Your task to perform on an android device: Go to Yahoo.com Image 0: 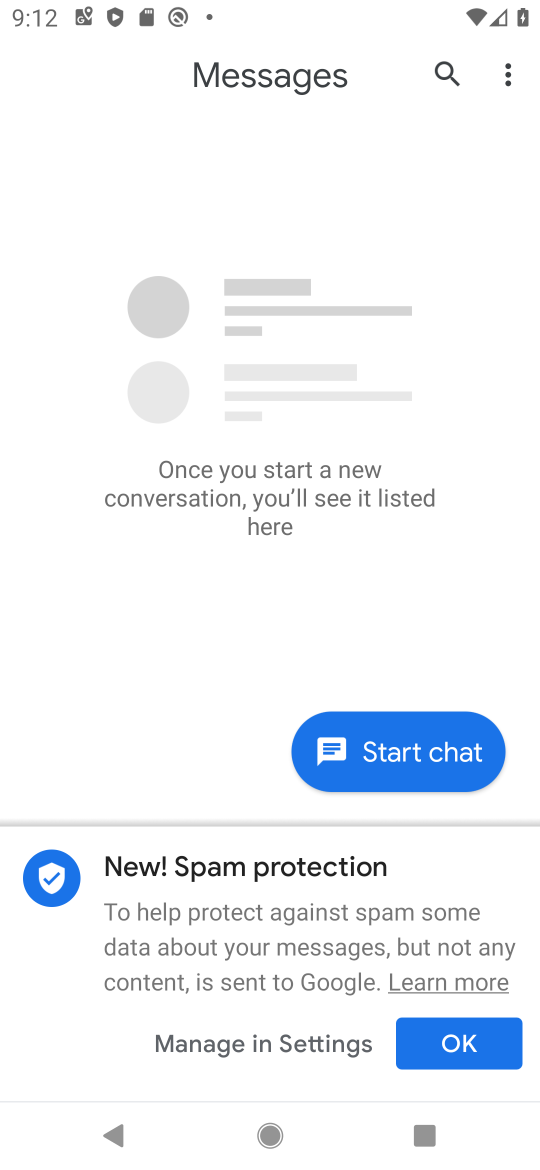
Step 0: press home button
Your task to perform on an android device: Go to Yahoo.com Image 1: 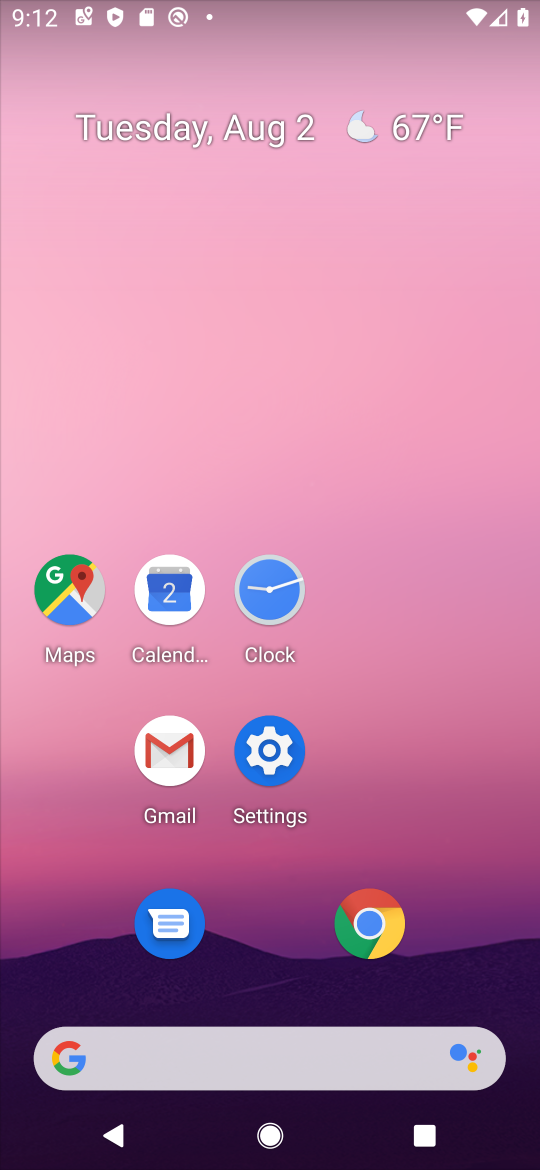
Step 1: click (366, 912)
Your task to perform on an android device: Go to Yahoo.com Image 2: 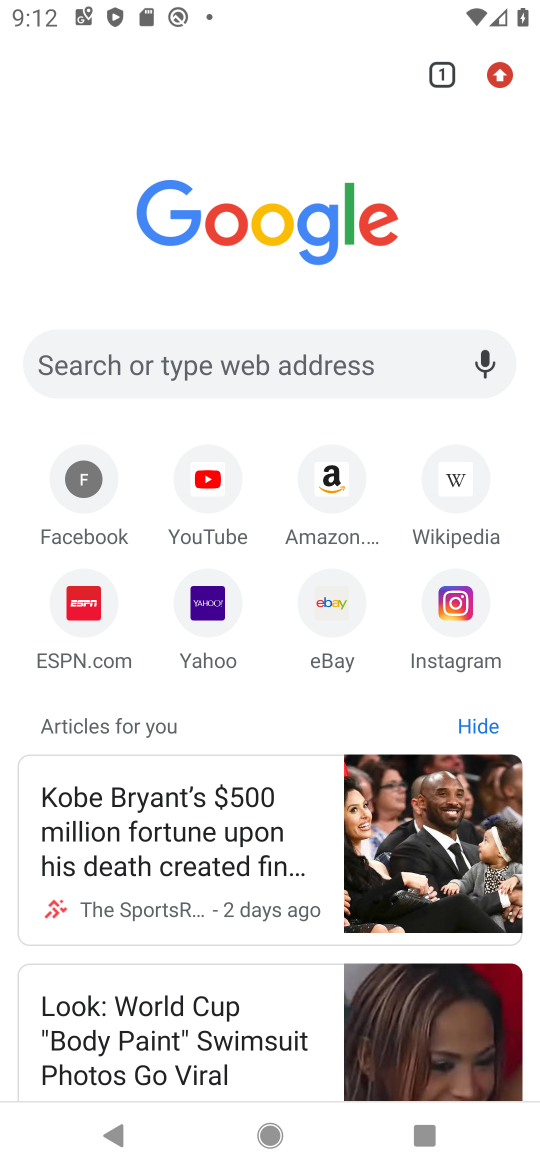
Step 2: click (250, 352)
Your task to perform on an android device: Go to Yahoo.com Image 3: 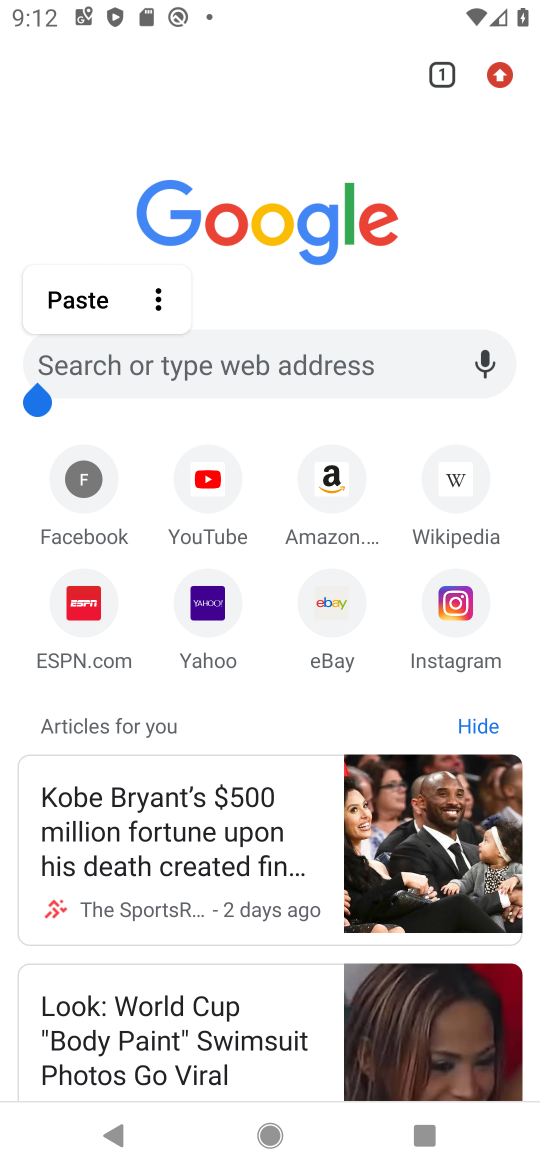
Step 3: type "Yahoo.com"
Your task to perform on an android device: Go to Yahoo.com Image 4: 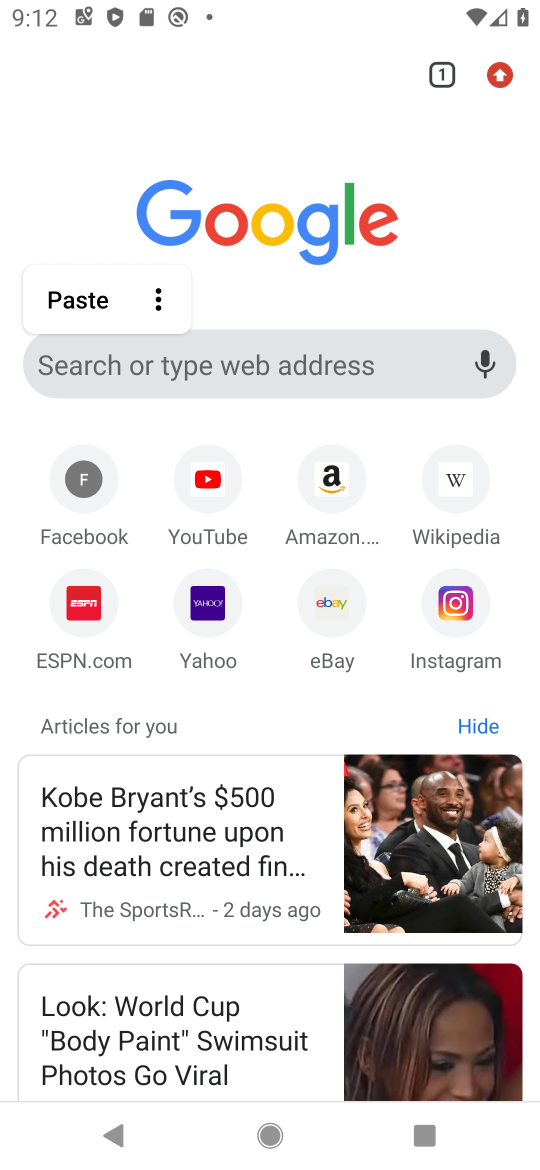
Step 4: click (292, 351)
Your task to perform on an android device: Go to Yahoo.com Image 5: 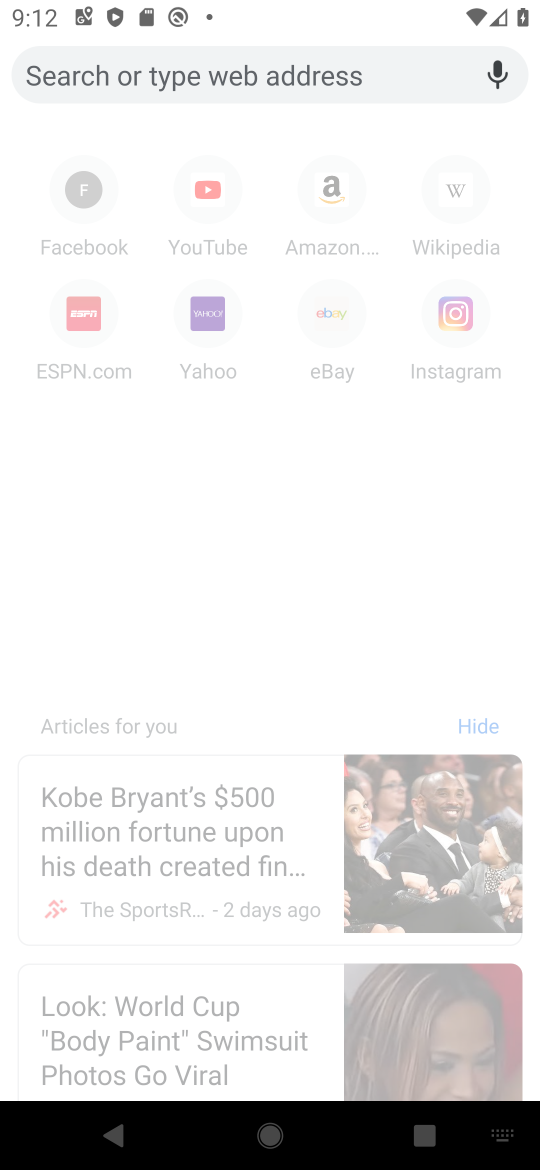
Step 5: type "Yahoo.com"
Your task to perform on an android device: Go to Yahoo.com Image 6: 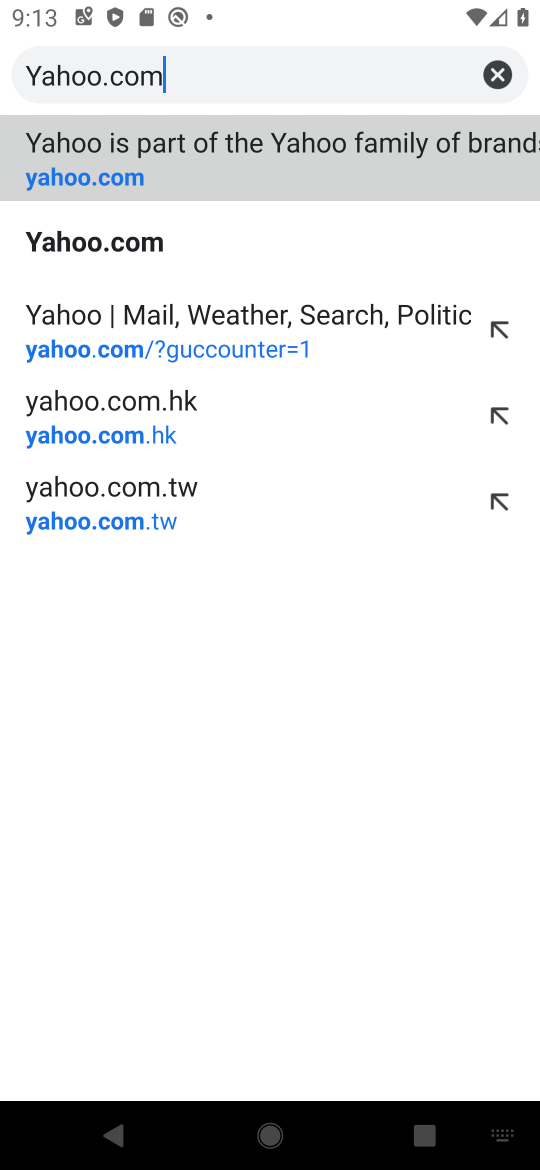
Step 6: click (122, 237)
Your task to perform on an android device: Go to Yahoo.com Image 7: 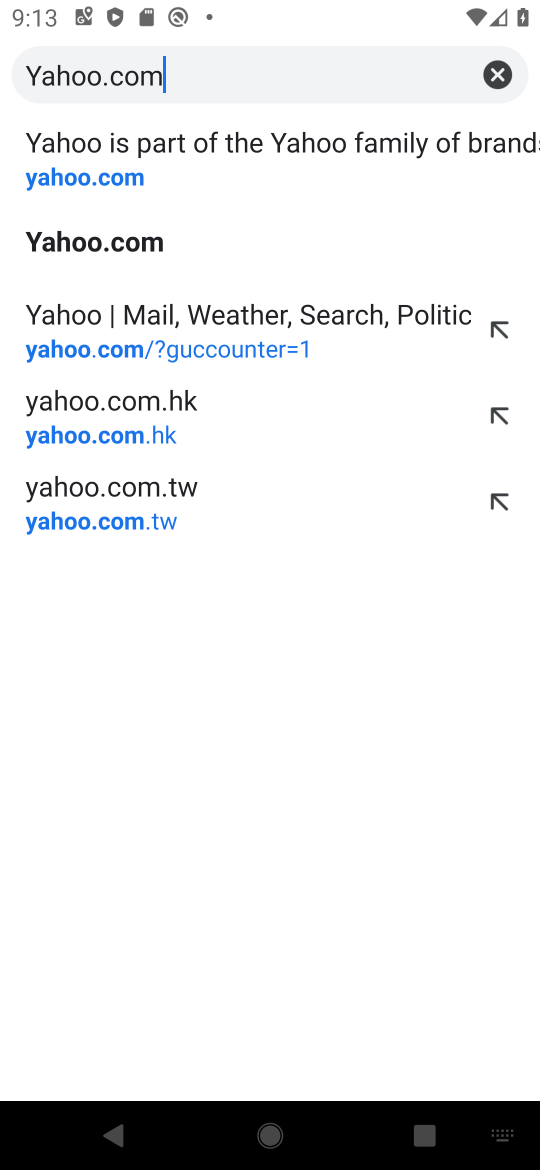
Step 7: click (122, 238)
Your task to perform on an android device: Go to Yahoo.com Image 8: 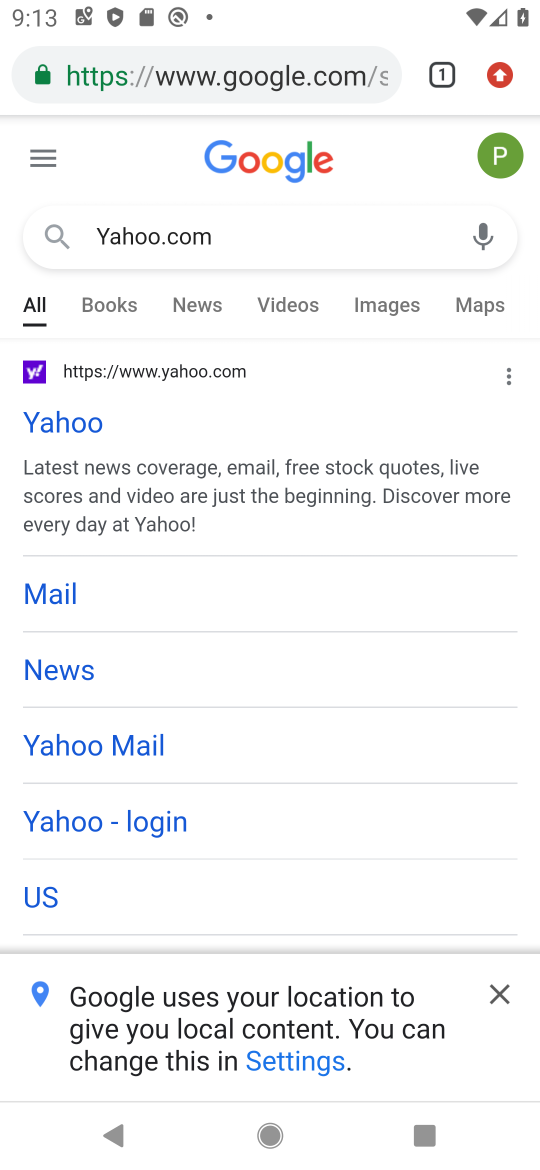
Step 8: task complete